Your task to perform on an android device: Go to battery settings Image 0: 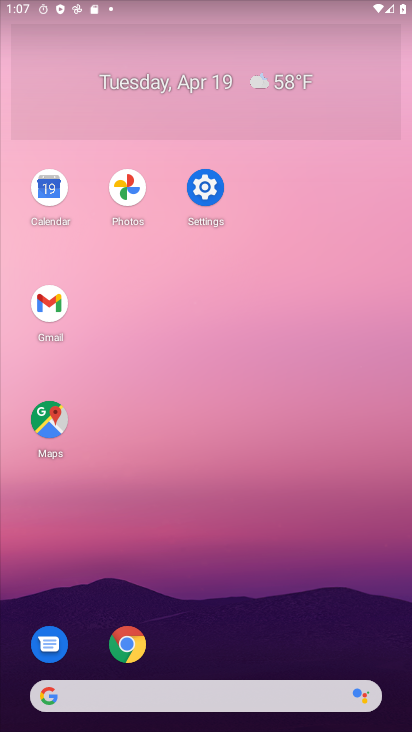
Step 0: click (211, 191)
Your task to perform on an android device: Go to battery settings Image 1: 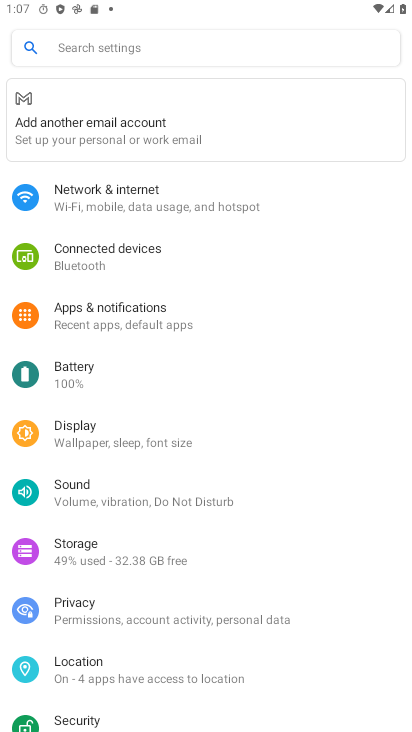
Step 1: click (155, 373)
Your task to perform on an android device: Go to battery settings Image 2: 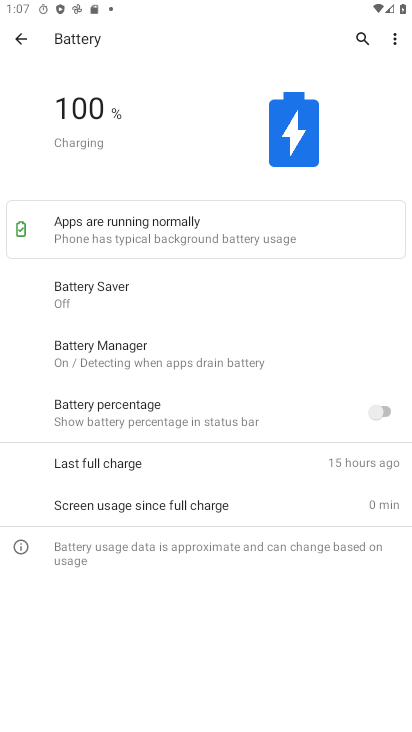
Step 2: task complete